Your task to perform on an android device: Open calendar and show me the third week of next month Image 0: 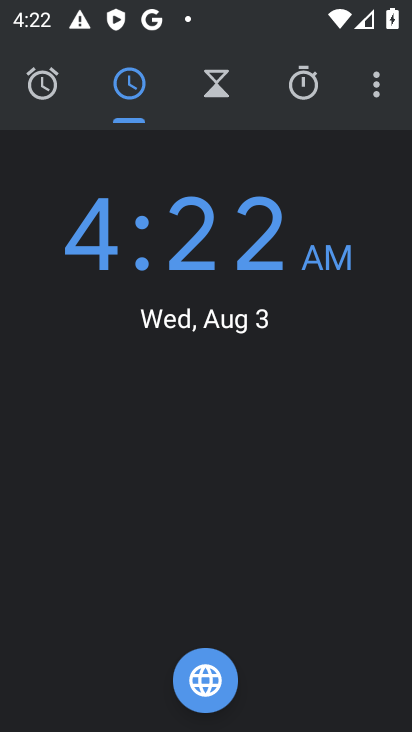
Step 0: press home button
Your task to perform on an android device: Open calendar and show me the third week of next month Image 1: 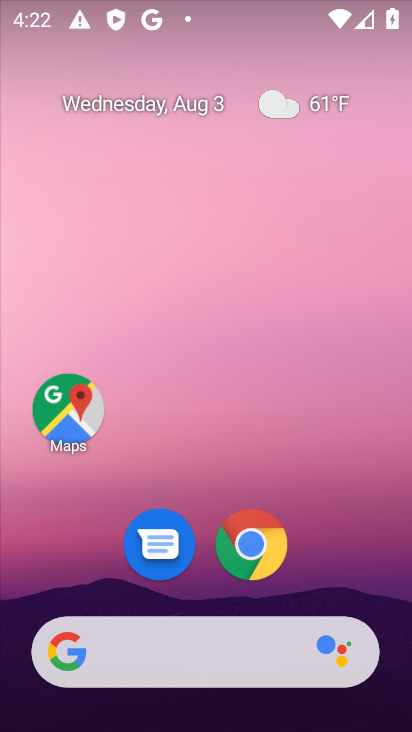
Step 1: drag from (349, 582) to (296, 46)
Your task to perform on an android device: Open calendar and show me the third week of next month Image 2: 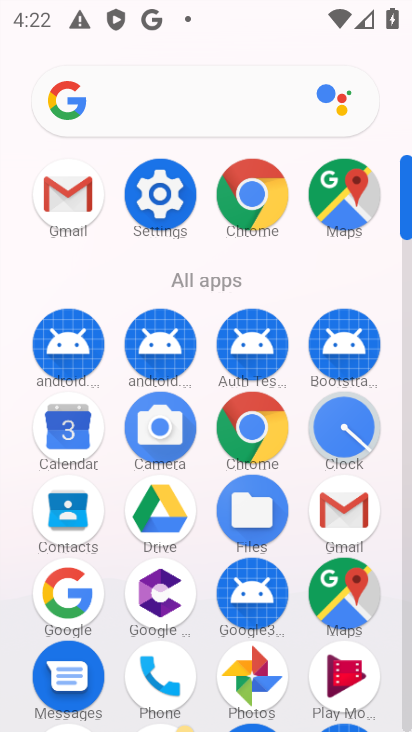
Step 2: click (58, 426)
Your task to perform on an android device: Open calendar and show me the third week of next month Image 3: 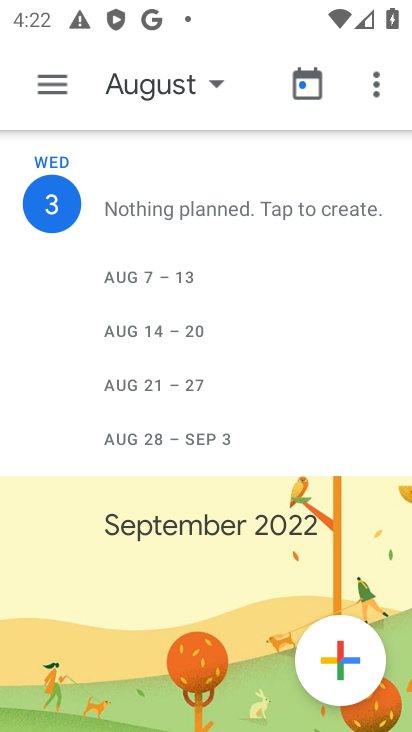
Step 3: click (209, 97)
Your task to perform on an android device: Open calendar and show me the third week of next month Image 4: 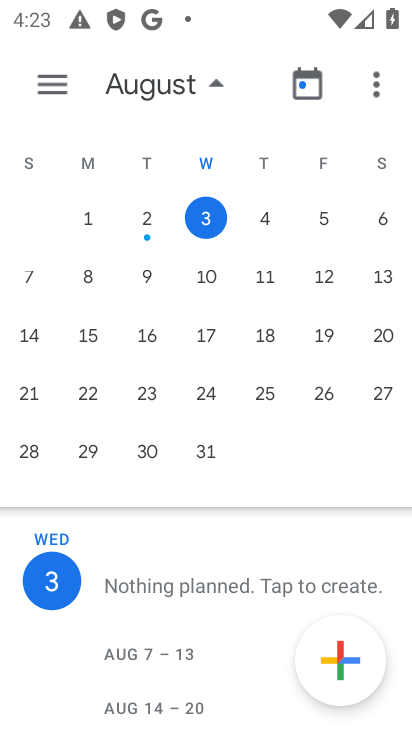
Step 4: drag from (353, 298) to (11, 236)
Your task to perform on an android device: Open calendar and show me the third week of next month Image 5: 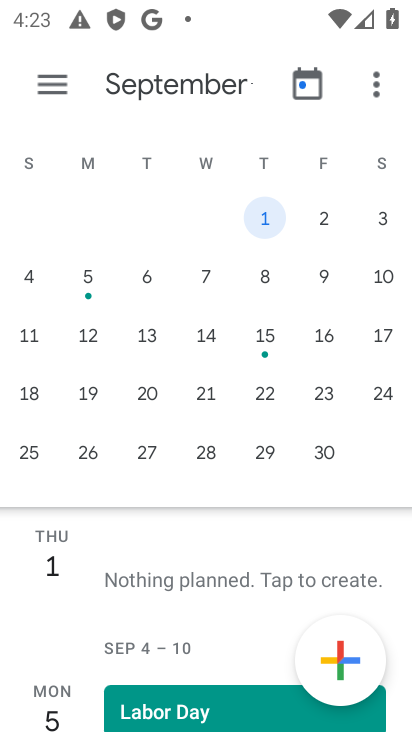
Step 5: click (330, 337)
Your task to perform on an android device: Open calendar and show me the third week of next month Image 6: 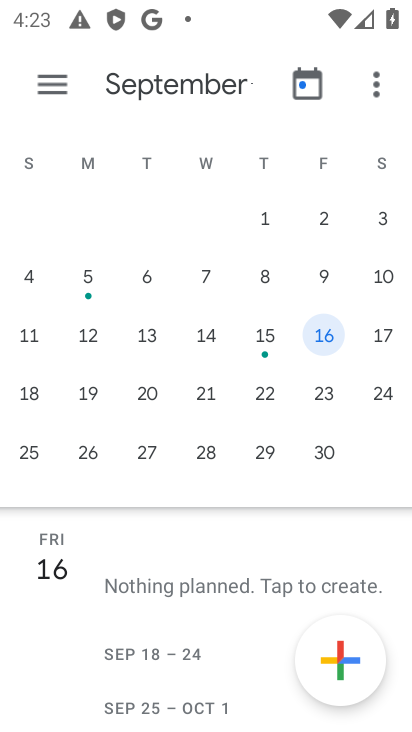
Step 6: task complete